Your task to perform on an android device: turn off notifications settings in the gmail app Image 0: 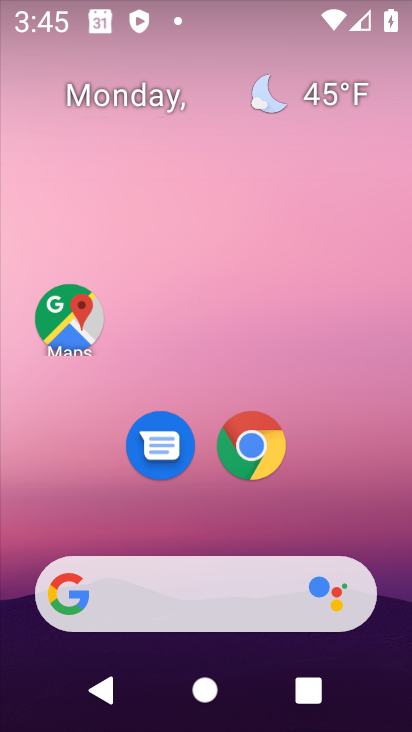
Step 0: drag from (304, 524) to (207, 70)
Your task to perform on an android device: turn off notifications settings in the gmail app Image 1: 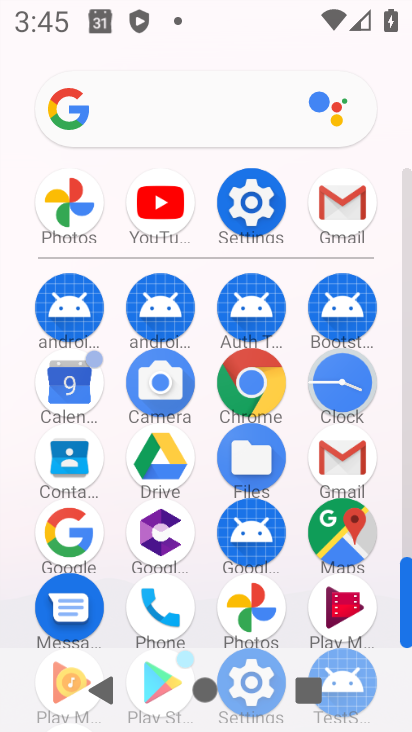
Step 1: click (339, 466)
Your task to perform on an android device: turn off notifications settings in the gmail app Image 2: 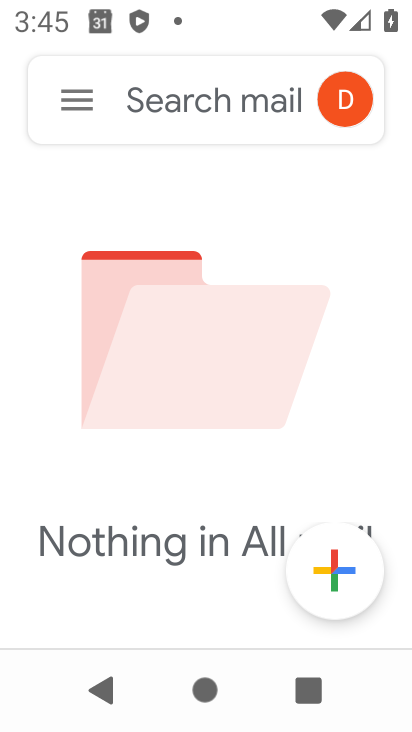
Step 2: click (72, 89)
Your task to perform on an android device: turn off notifications settings in the gmail app Image 3: 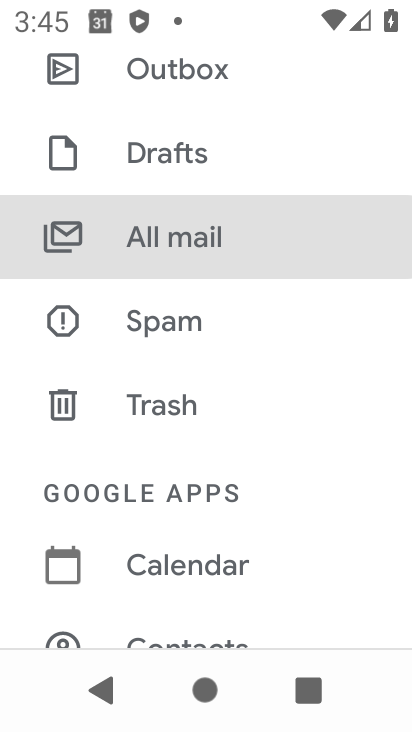
Step 3: drag from (203, 539) to (153, 181)
Your task to perform on an android device: turn off notifications settings in the gmail app Image 4: 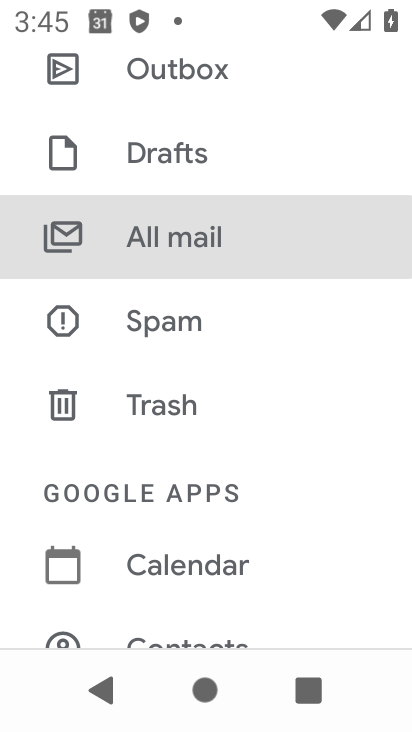
Step 4: drag from (163, 593) to (145, 174)
Your task to perform on an android device: turn off notifications settings in the gmail app Image 5: 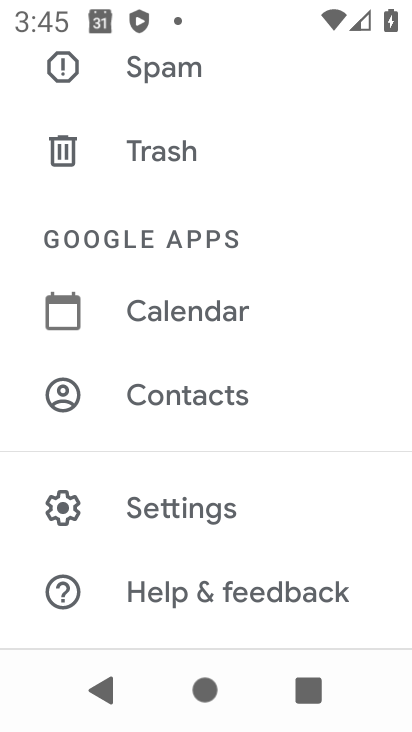
Step 5: click (212, 495)
Your task to perform on an android device: turn off notifications settings in the gmail app Image 6: 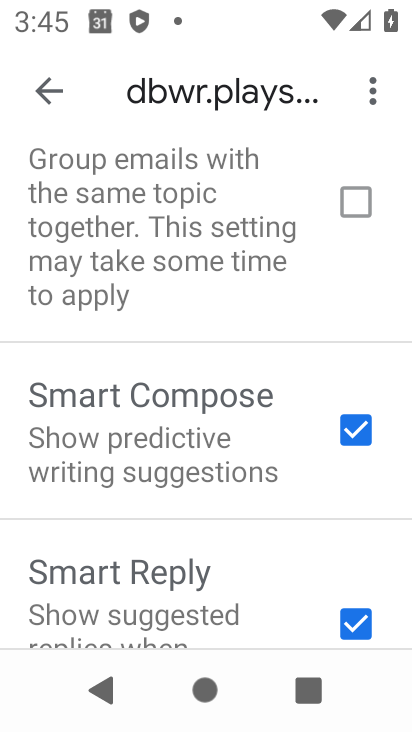
Step 6: drag from (103, 287) to (185, 556)
Your task to perform on an android device: turn off notifications settings in the gmail app Image 7: 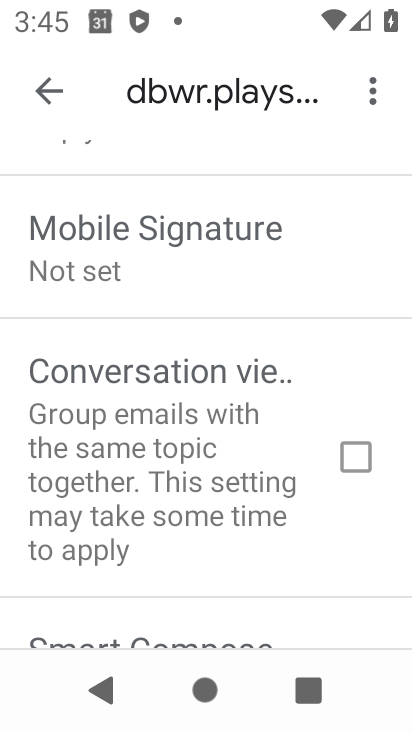
Step 7: drag from (148, 316) to (201, 610)
Your task to perform on an android device: turn off notifications settings in the gmail app Image 8: 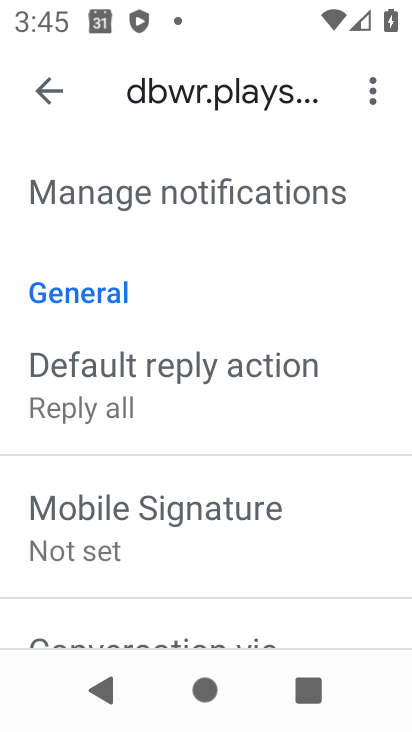
Step 8: drag from (179, 327) to (221, 492)
Your task to perform on an android device: turn off notifications settings in the gmail app Image 9: 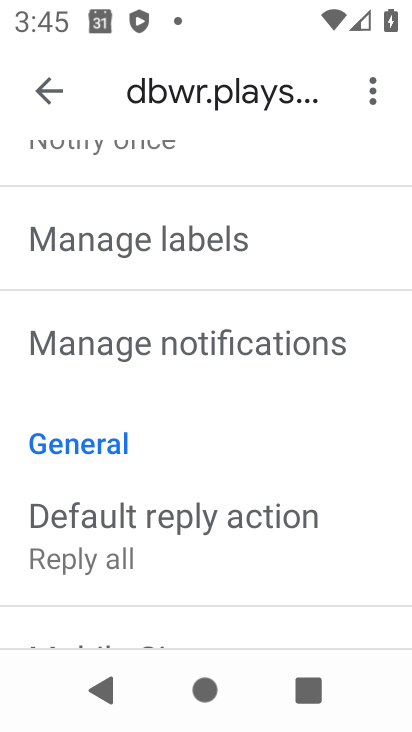
Step 9: click (169, 368)
Your task to perform on an android device: turn off notifications settings in the gmail app Image 10: 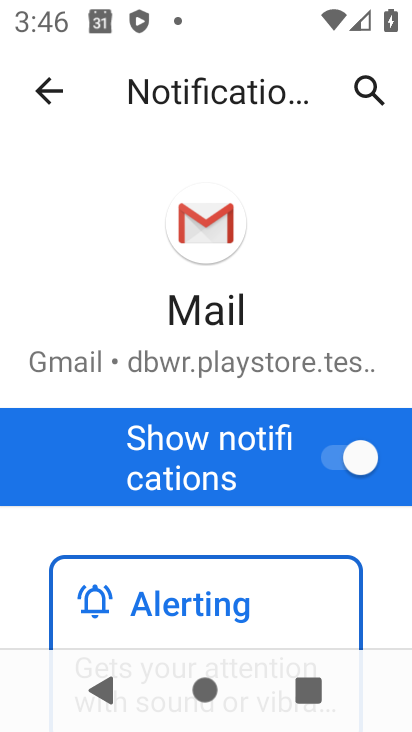
Step 10: click (320, 449)
Your task to perform on an android device: turn off notifications settings in the gmail app Image 11: 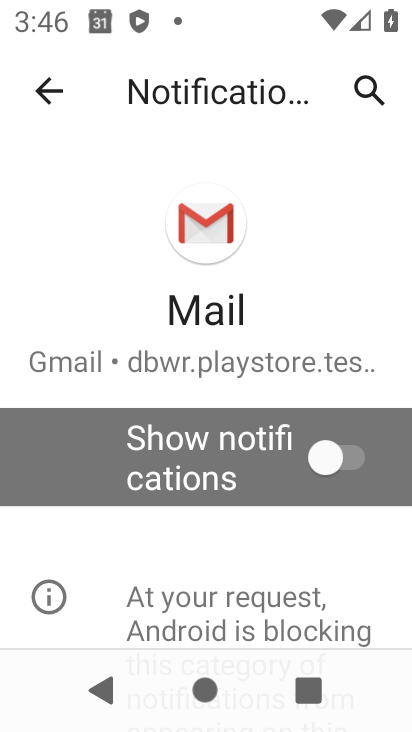
Step 11: task complete